Your task to perform on an android device: Go to Yahoo.com Image 0: 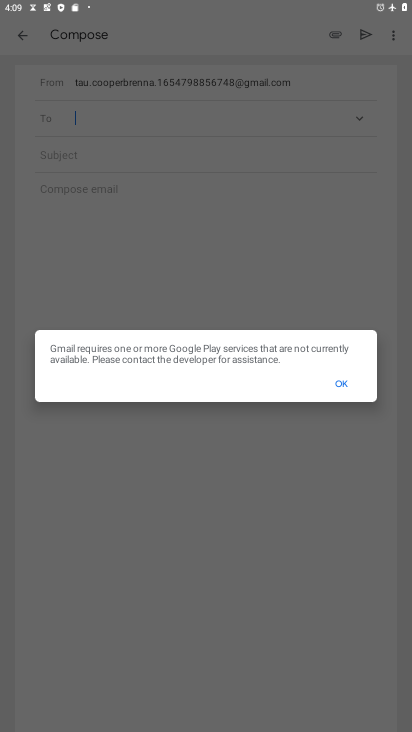
Step 0: press home button
Your task to perform on an android device: Go to Yahoo.com Image 1: 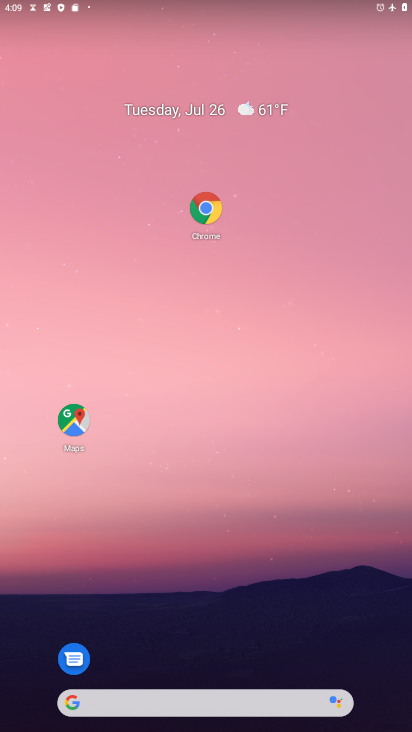
Step 1: click (179, 648)
Your task to perform on an android device: Go to Yahoo.com Image 2: 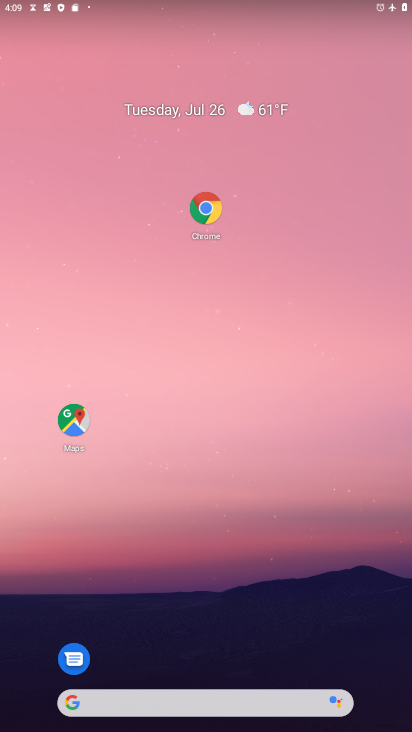
Step 2: click (203, 226)
Your task to perform on an android device: Go to Yahoo.com Image 3: 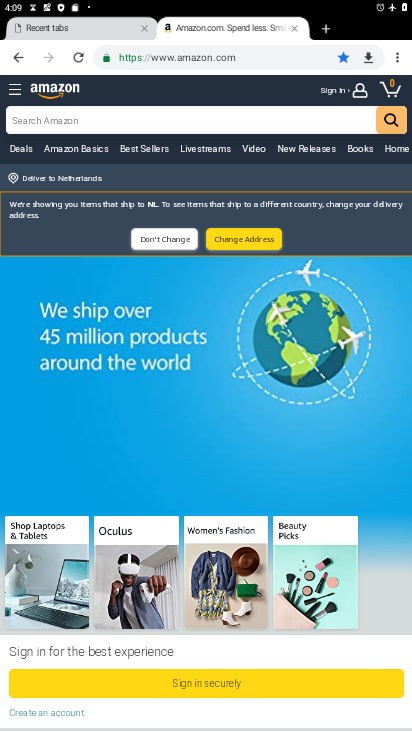
Step 3: click (139, 59)
Your task to perform on an android device: Go to Yahoo.com Image 4: 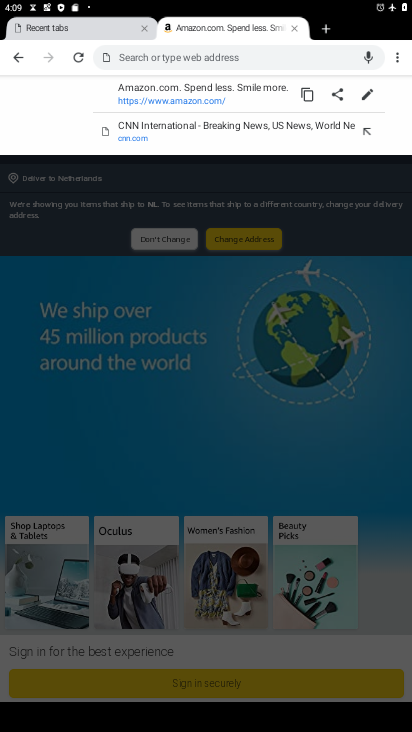
Step 4: type "Yahoo.com"
Your task to perform on an android device: Go to Yahoo.com Image 5: 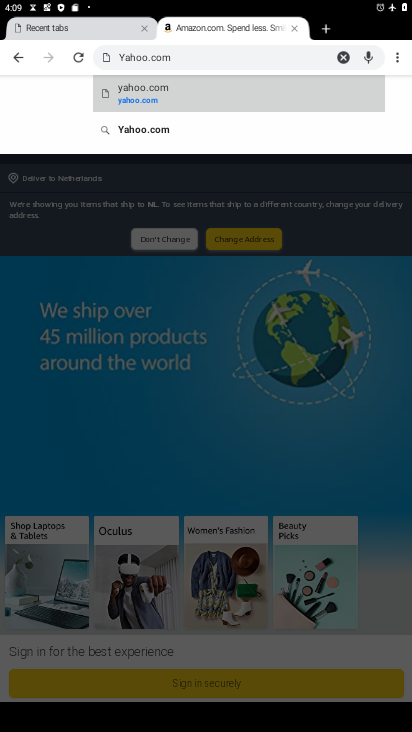
Step 5: click (141, 98)
Your task to perform on an android device: Go to Yahoo.com Image 6: 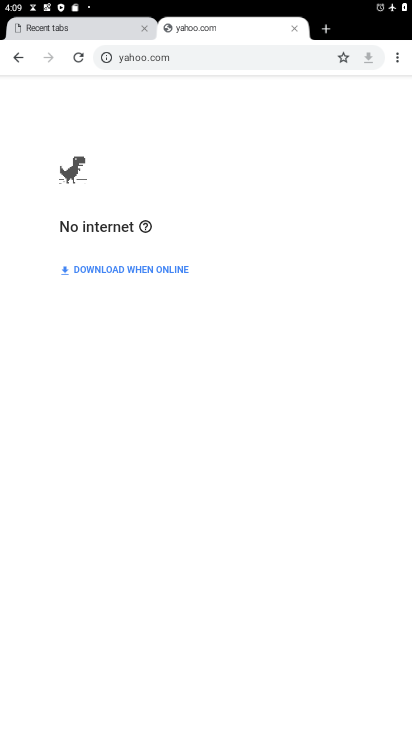
Step 6: task complete